Your task to perform on an android device: check the backup settings in the google photos Image 0: 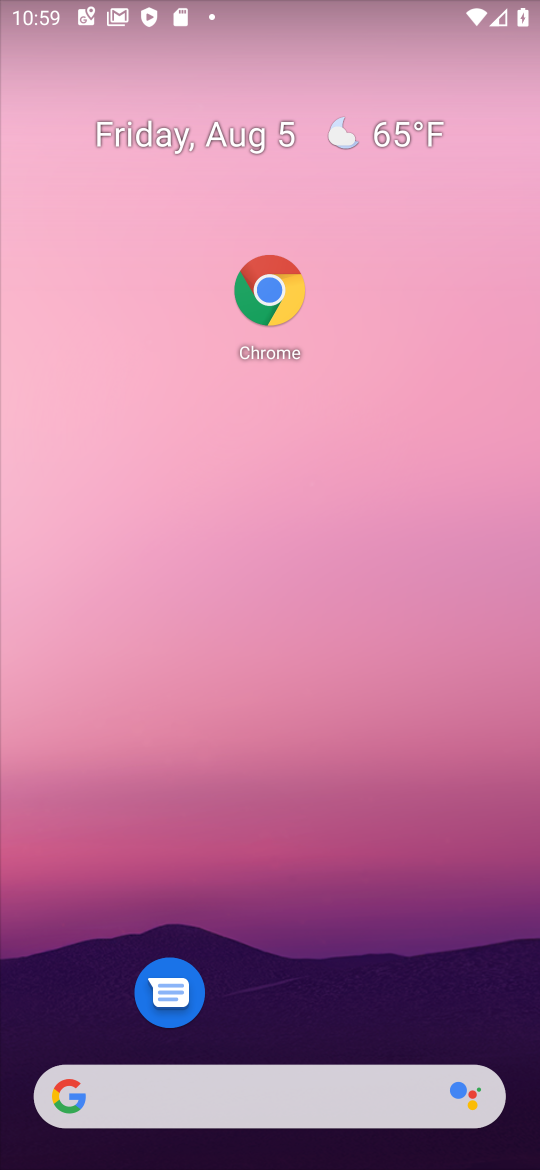
Step 0: drag from (415, 1043) to (192, 161)
Your task to perform on an android device: check the backup settings in the google photos Image 1: 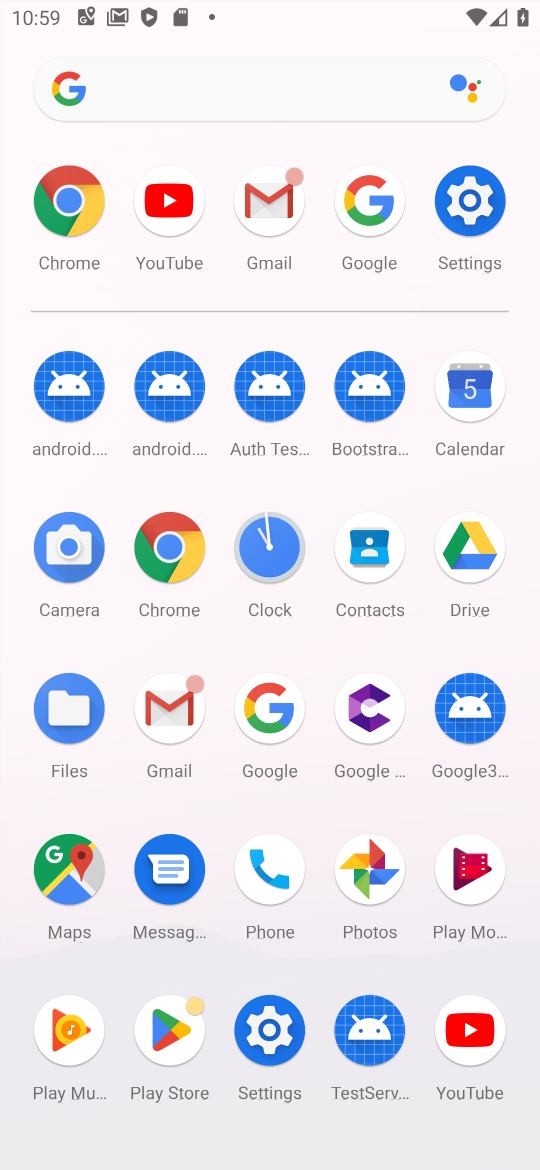
Step 1: click (366, 891)
Your task to perform on an android device: check the backup settings in the google photos Image 2: 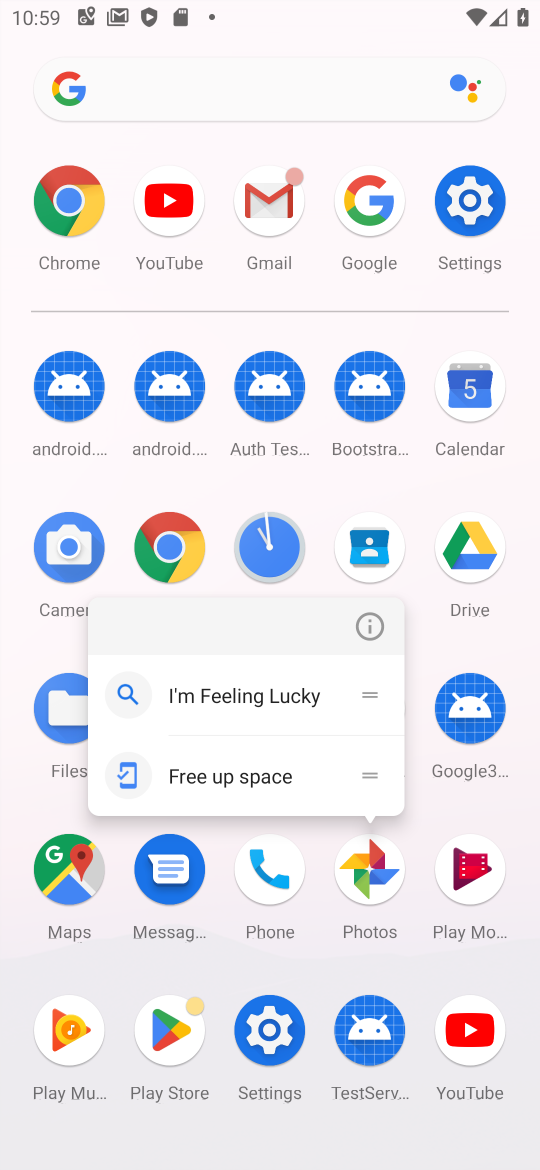
Step 2: click (366, 889)
Your task to perform on an android device: check the backup settings in the google photos Image 3: 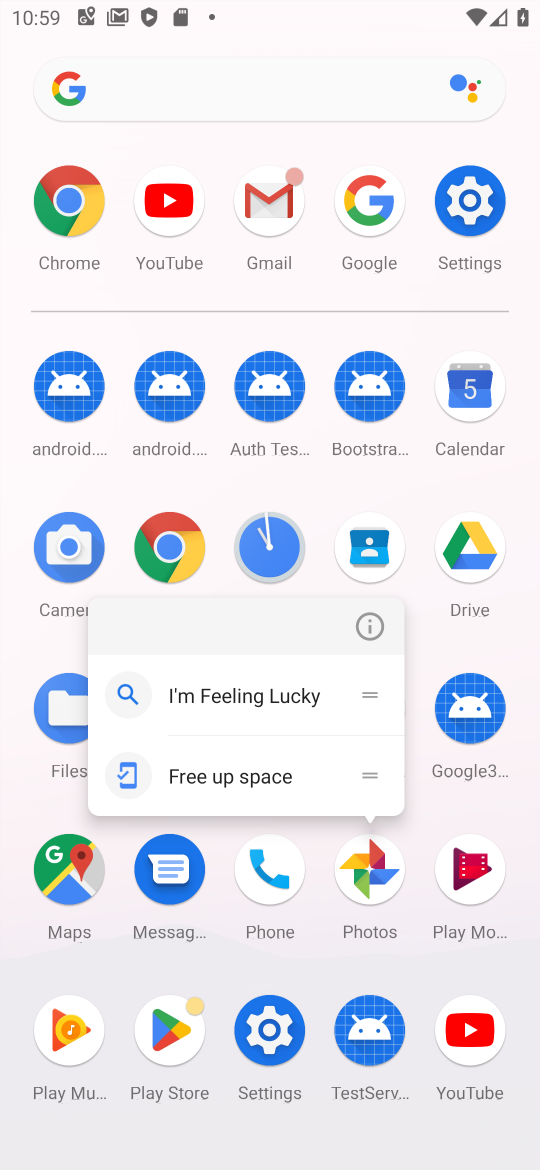
Step 3: click (366, 885)
Your task to perform on an android device: check the backup settings in the google photos Image 4: 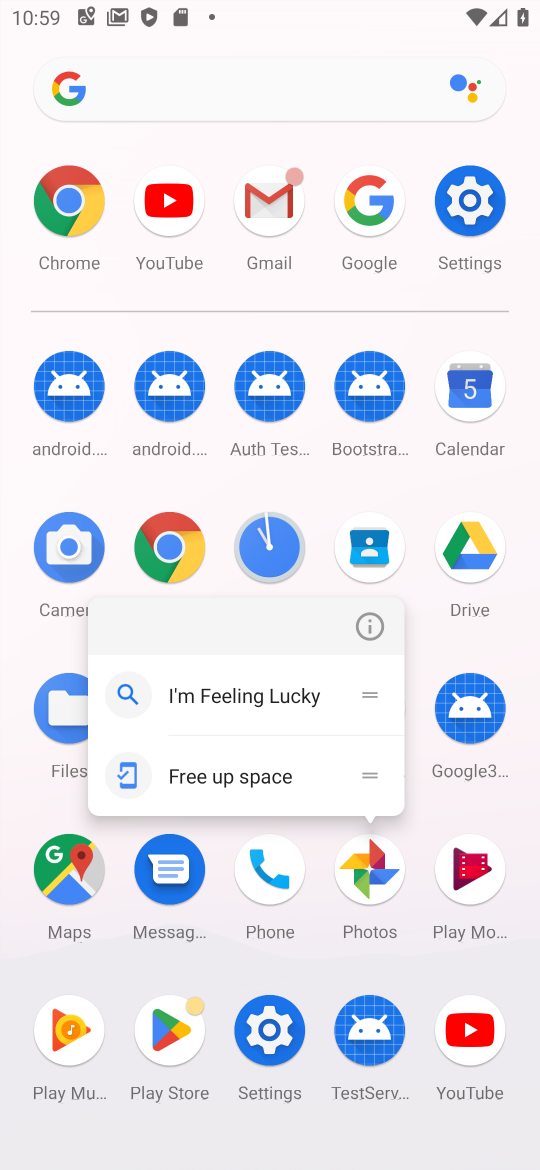
Step 4: click (363, 879)
Your task to perform on an android device: check the backup settings in the google photos Image 5: 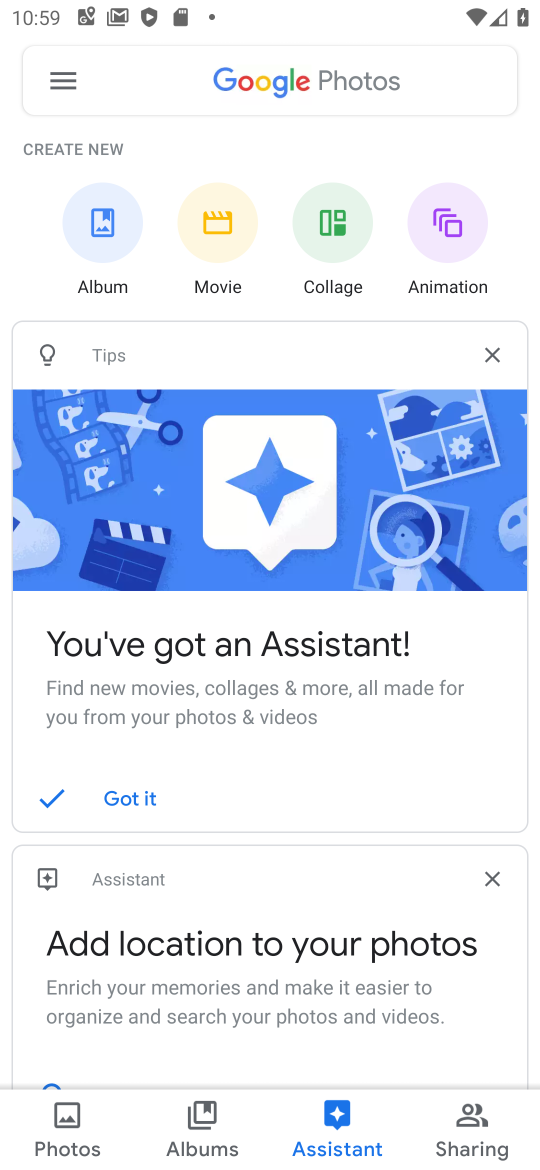
Step 5: click (76, 90)
Your task to perform on an android device: check the backup settings in the google photos Image 6: 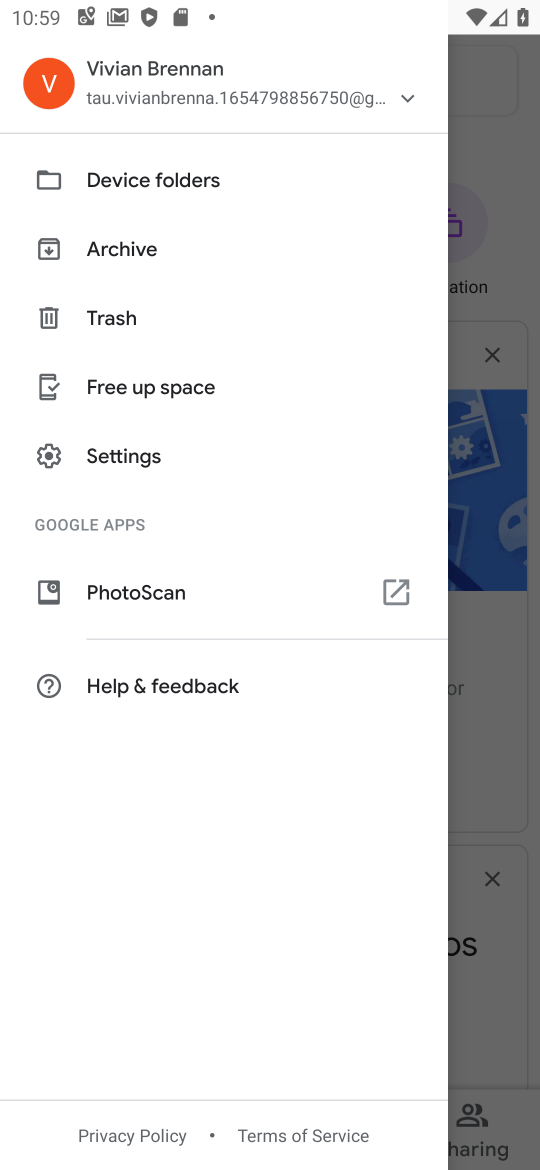
Step 6: click (108, 473)
Your task to perform on an android device: check the backup settings in the google photos Image 7: 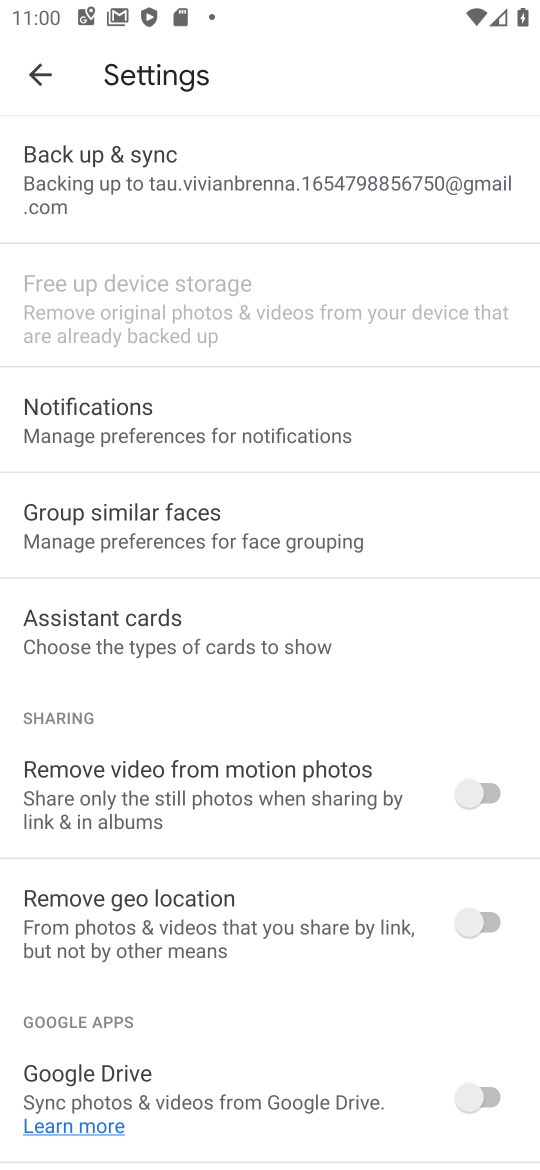
Step 7: click (130, 197)
Your task to perform on an android device: check the backup settings in the google photos Image 8: 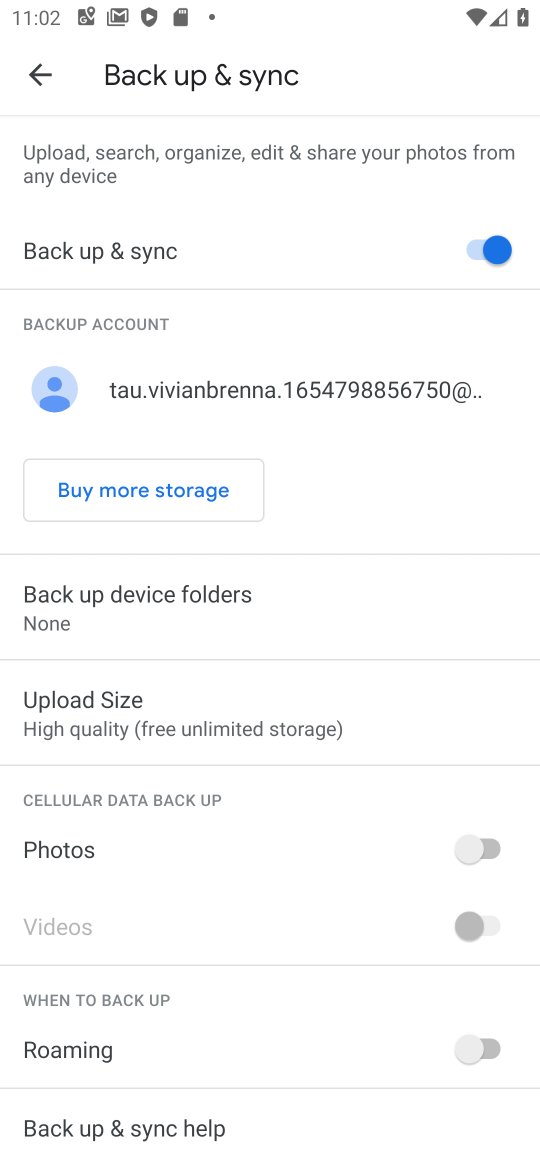
Step 8: task complete